Your task to perform on an android device: visit the assistant section in the google photos Image 0: 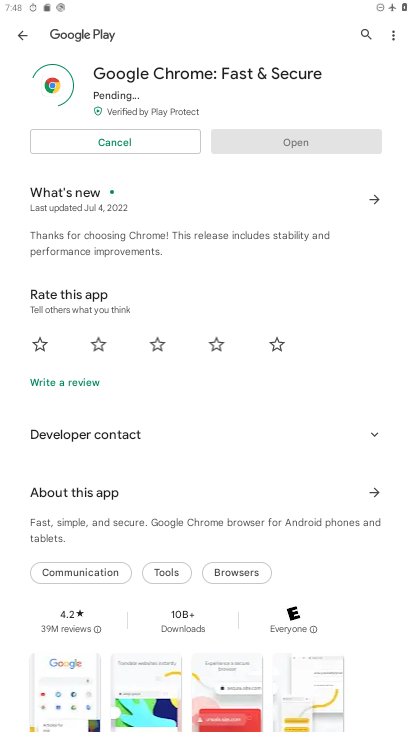
Step 0: press home button
Your task to perform on an android device: visit the assistant section in the google photos Image 1: 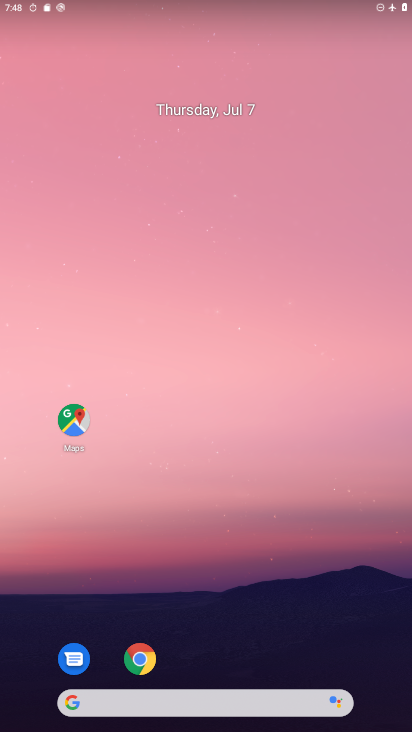
Step 1: drag from (385, 651) to (271, 22)
Your task to perform on an android device: visit the assistant section in the google photos Image 2: 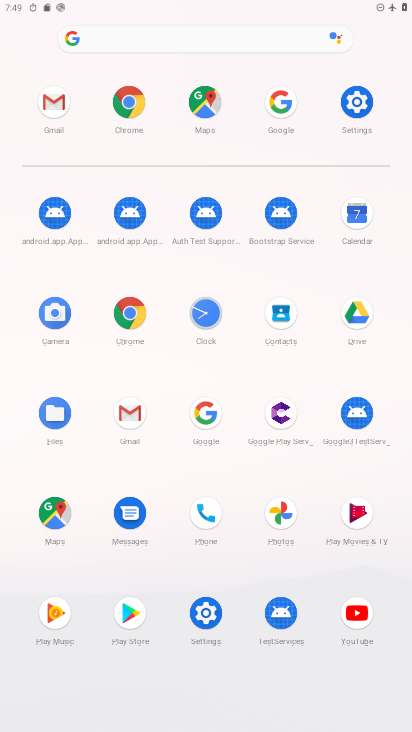
Step 2: click (282, 501)
Your task to perform on an android device: visit the assistant section in the google photos Image 3: 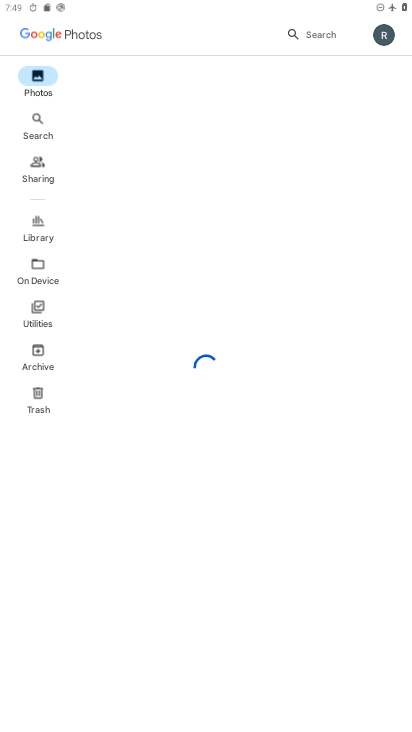
Step 3: task complete